Your task to perform on an android device: Go to notification settings Image 0: 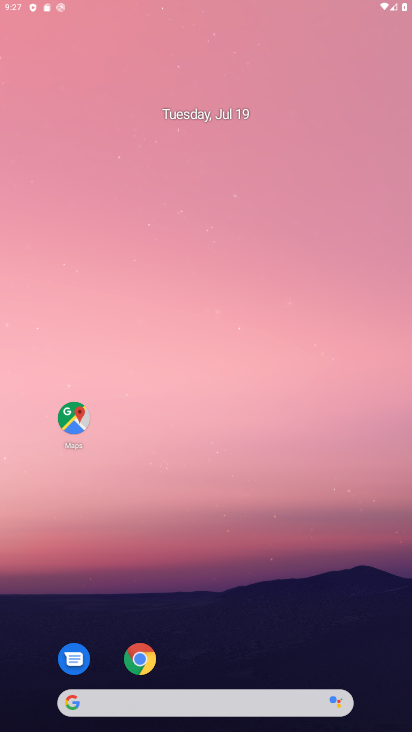
Step 0: drag from (245, 454) to (408, 144)
Your task to perform on an android device: Go to notification settings Image 1: 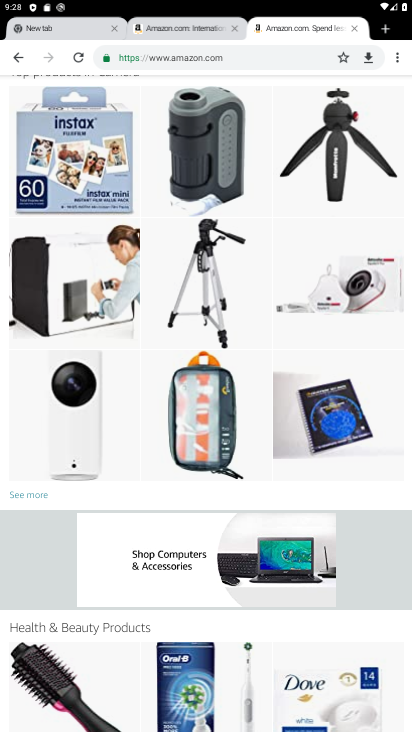
Step 1: drag from (243, 489) to (259, 357)
Your task to perform on an android device: Go to notification settings Image 2: 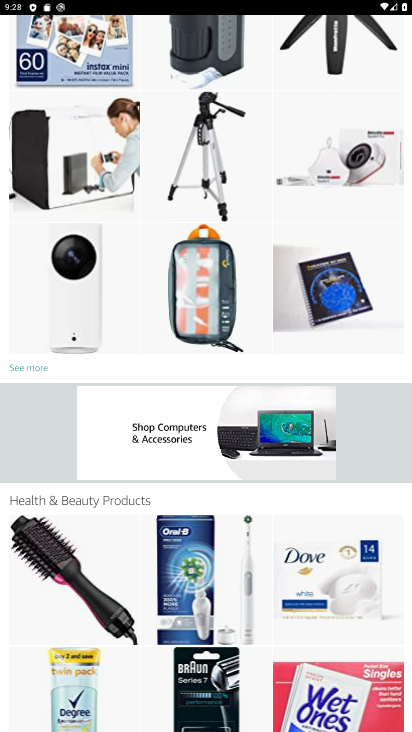
Step 2: drag from (234, 239) to (389, 710)
Your task to perform on an android device: Go to notification settings Image 3: 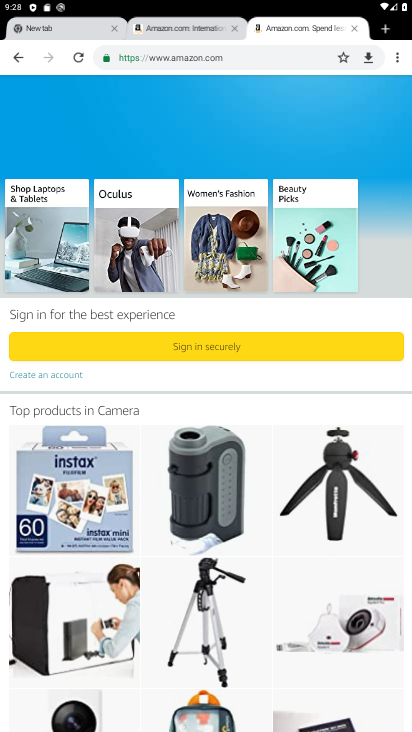
Step 3: press home button
Your task to perform on an android device: Go to notification settings Image 4: 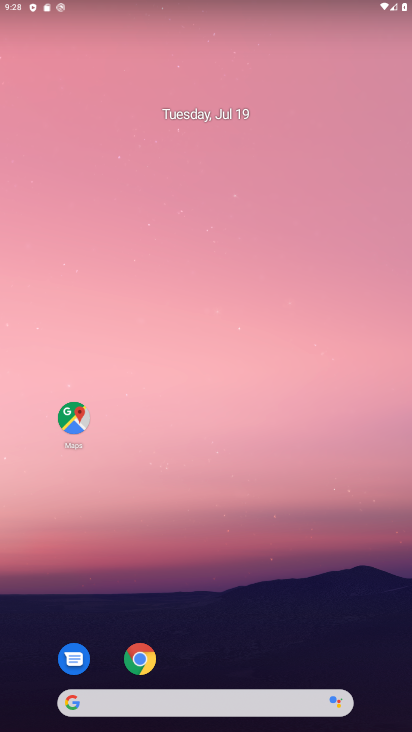
Step 4: drag from (197, 524) to (272, 265)
Your task to perform on an android device: Go to notification settings Image 5: 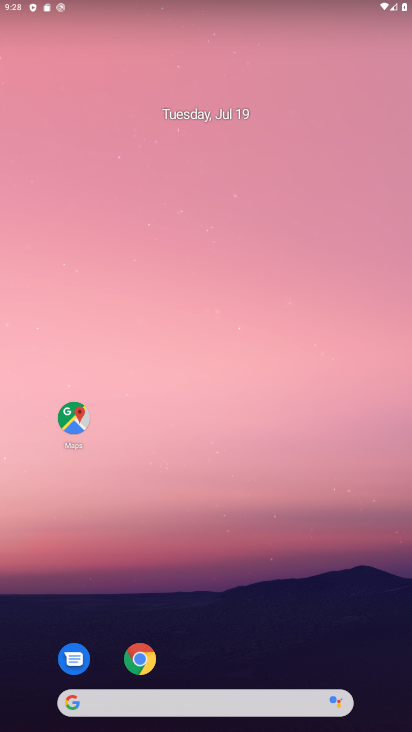
Step 5: drag from (186, 423) to (327, 11)
Your task to perform on an android device: Go to notification settings Image 6: 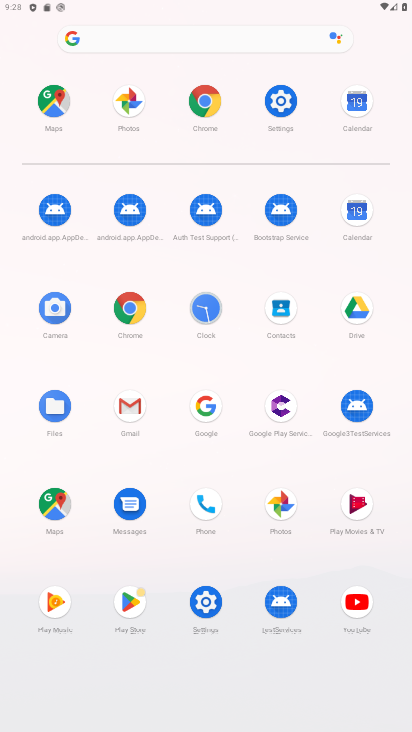
Step 6: click (276, 101)
Your task to perform on an android device: Go to notification settings Image 7: 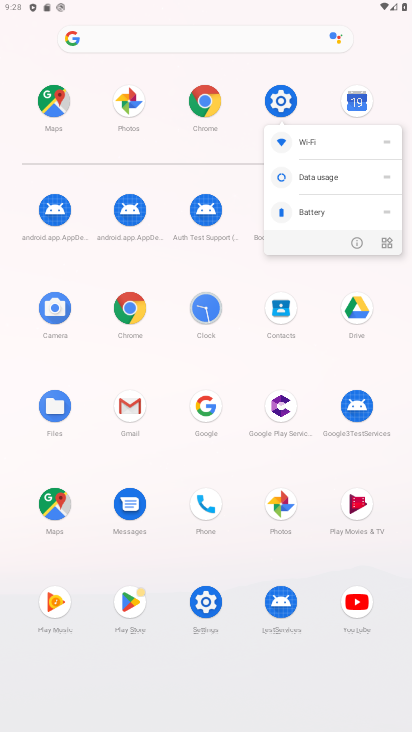
Step 7: click (356, 241)
Your task to perform on an android device: Go to notification settings Image 8: 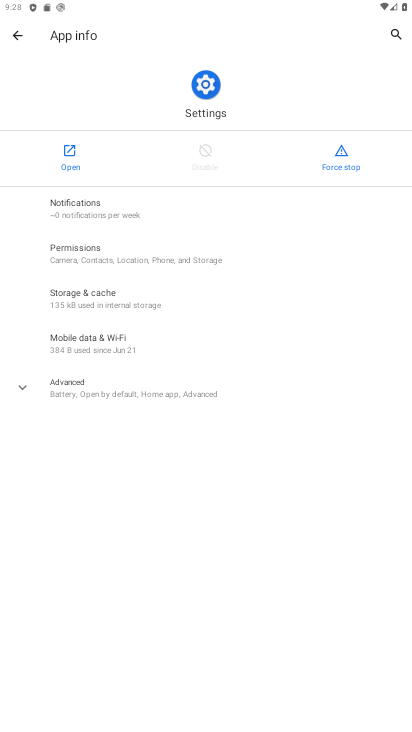
Step 8: click (81, 159)
Your task to perform on an android device: Go to notification settings Image 9: 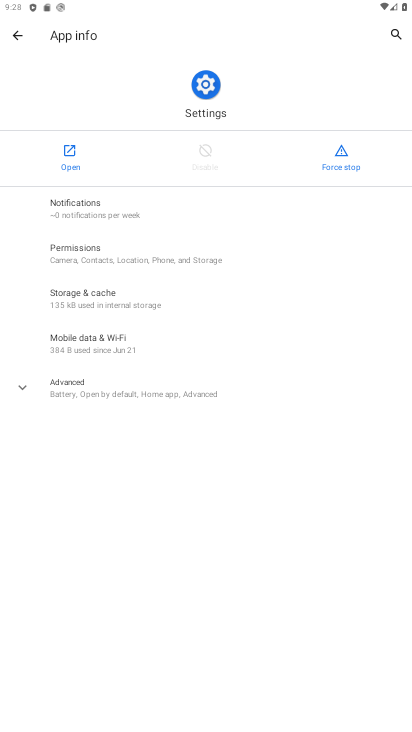
Step 9: click (81, 159)
Your task to perform on an android device: Go to notification settings Image 10: 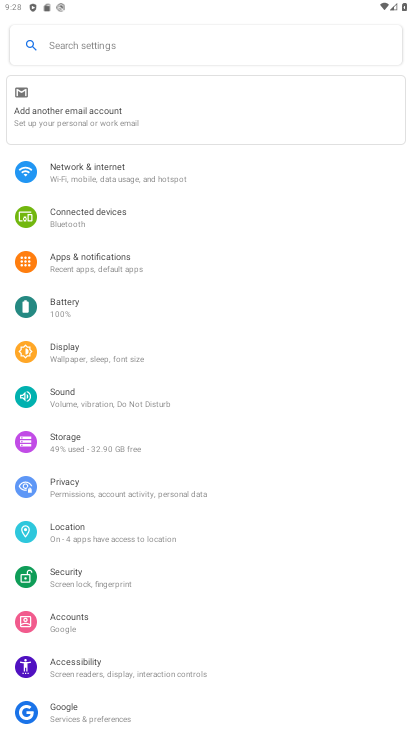
Step 10: click (112, 194)
Your task to perform on an android device: Go to notification settings Image 11: 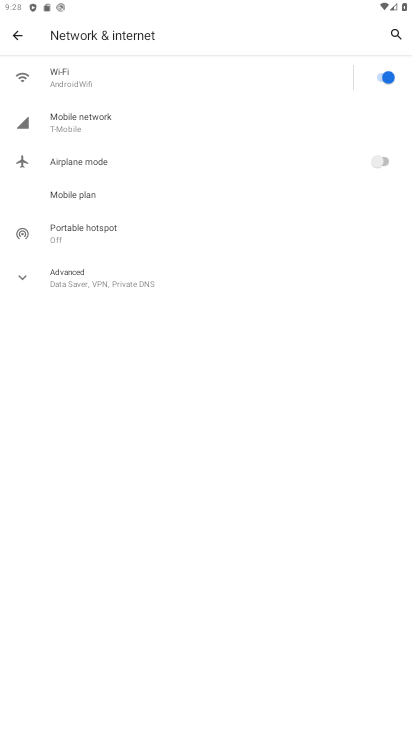
Step 11: drag from (166, 347) to (205, 155)
Your task to perform on an android device: Go to notification settings Image 12: 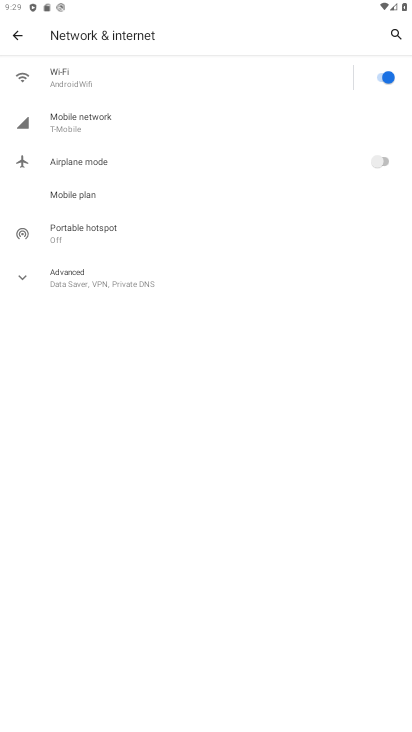
Step 12: click (23, 39)
Your task to perform on an android device: Go to notification settings Image 13: 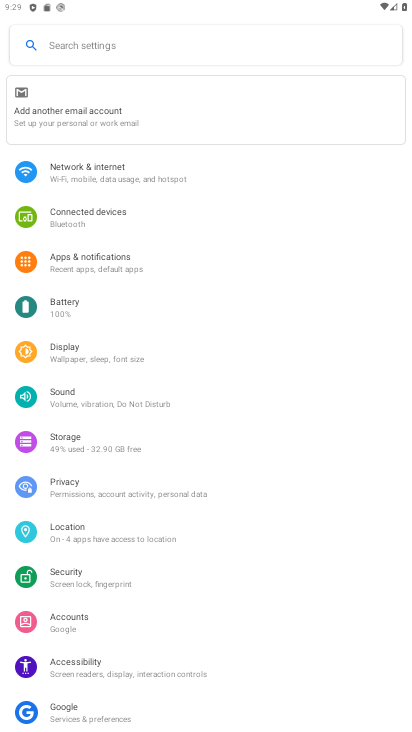
Step 13: click (103, 266)
Your task to perform on an android device: Go to notification settings Image 14: 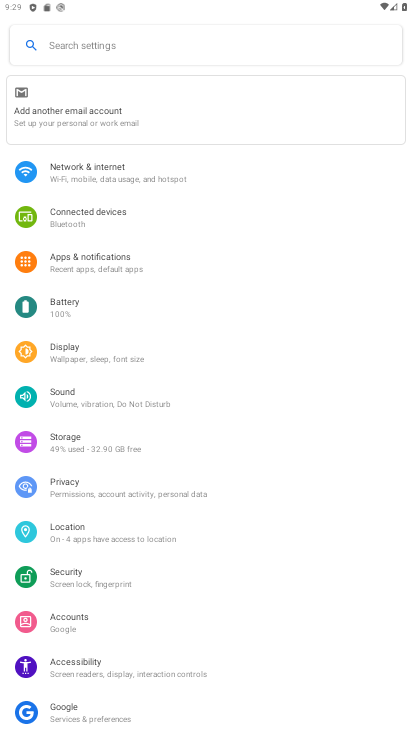
Step 14: click (103, 265)
Your task to perform on an android device: Go to notification settings Image 15: 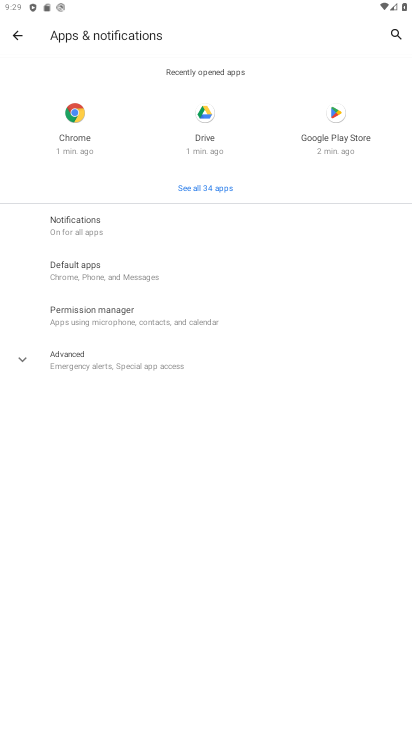
Step 15: click (165, 228)
Your task to perform on an android device: Go to notification settings Image 16: 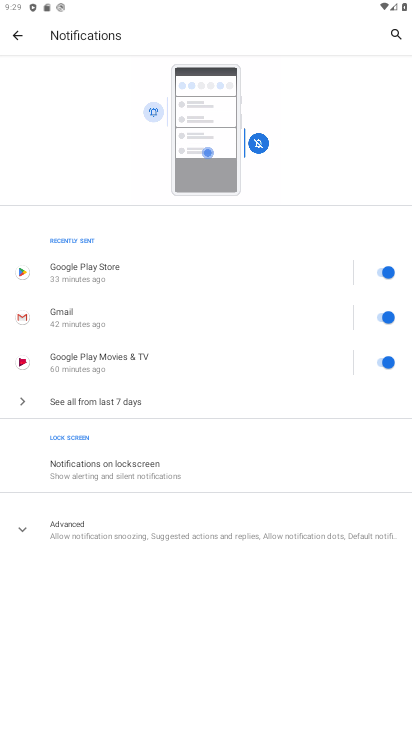
Step 16: task complete